Your task to perform on an android device: What's the weather? Image 0: 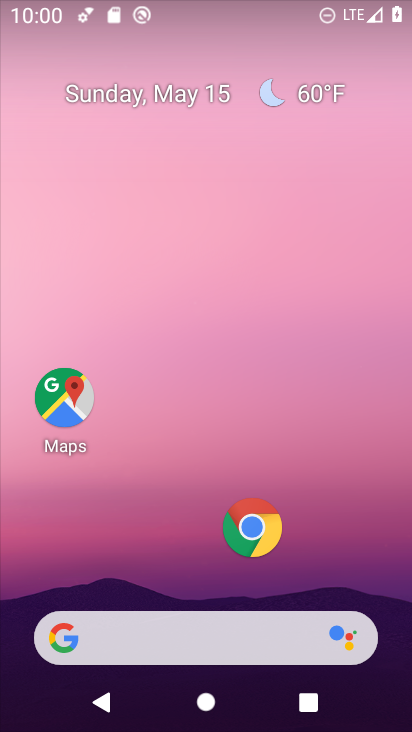
Step 0: drag from (207, 586) to (181, 62)
Your task to perform on an android device: What's the weather? Image 1: 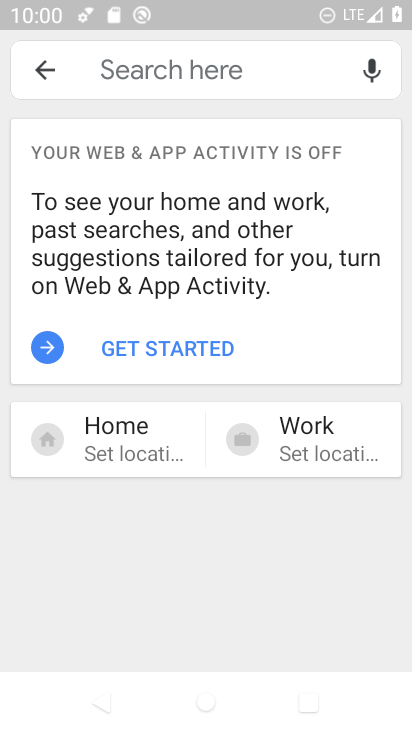
Step 1: press home button
Your task to perform on an android device: What's the weather? Image 2: 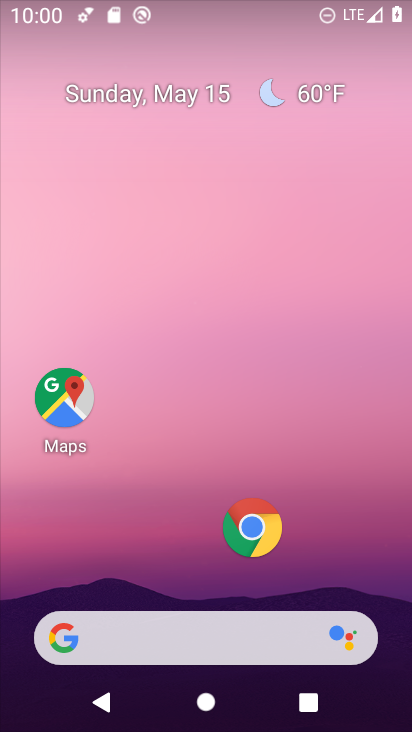
Step 2: click (307, 90)
Your task to perform on an android device: What's the weather? Image 3: 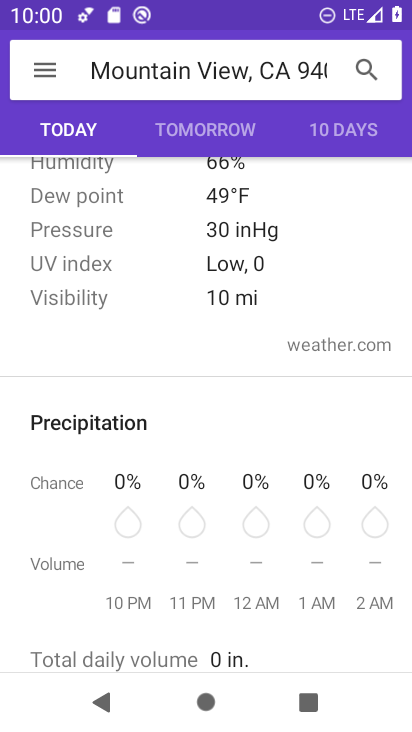
Step 3: task complete